Your task to perform on an android device: Go to Wikipedia Image 0: 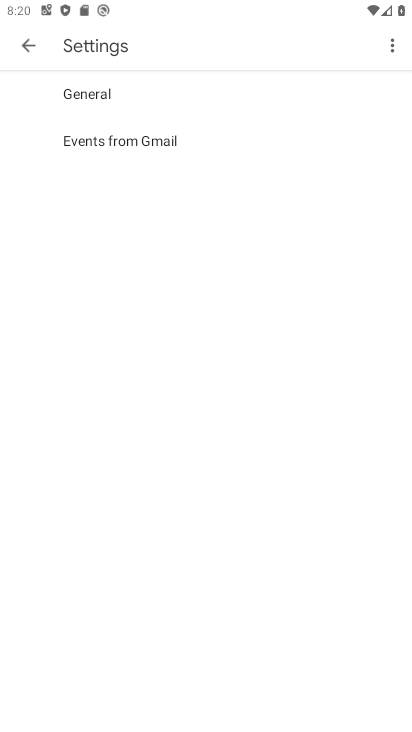
Step 0: press home button
Your task to perform on an android device: Go to Wikipedia Image 1: 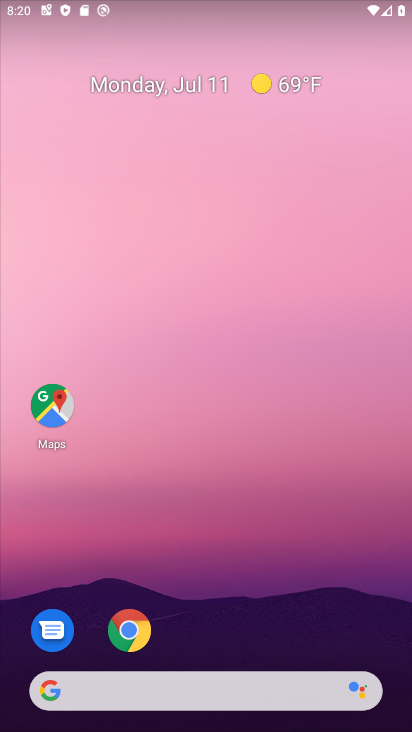
Step 1: click (135, 619)
Your task to perform on an android device: Go to Wikipedia Image 2: 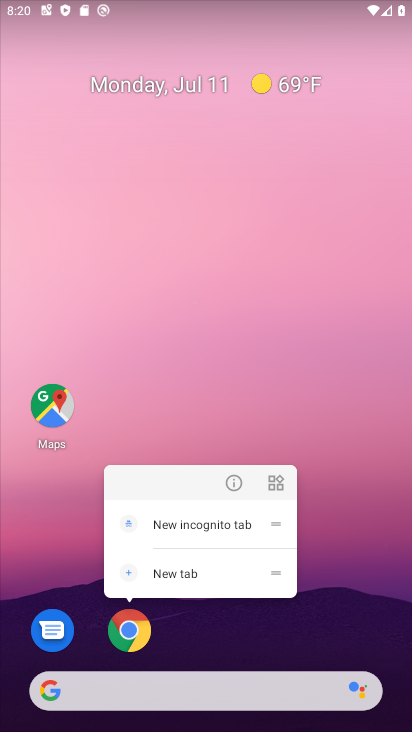
Step 2: click (132, 628)
Your task to perform on an android device: Go to Wikipedia Image 3: 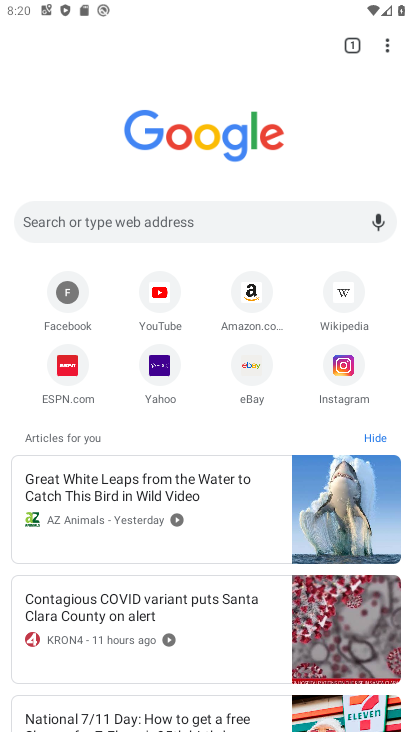
Step 3: click (334, 298)
Your task to perform on an android device: Go to Wikipedia Image 4: 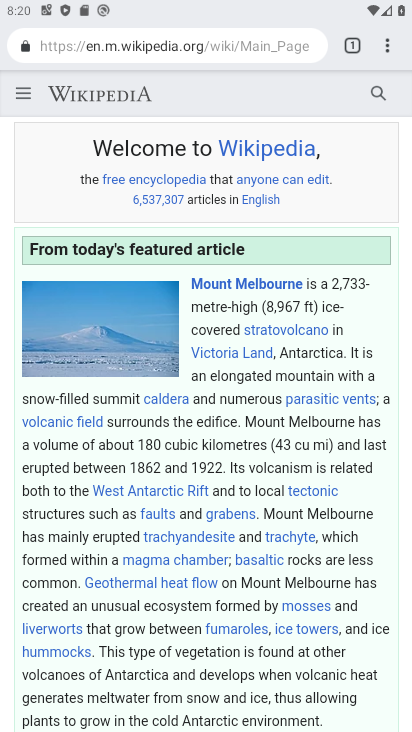
Step 4: task complete